Your task to perform on an android device: Open the clock Image 0: 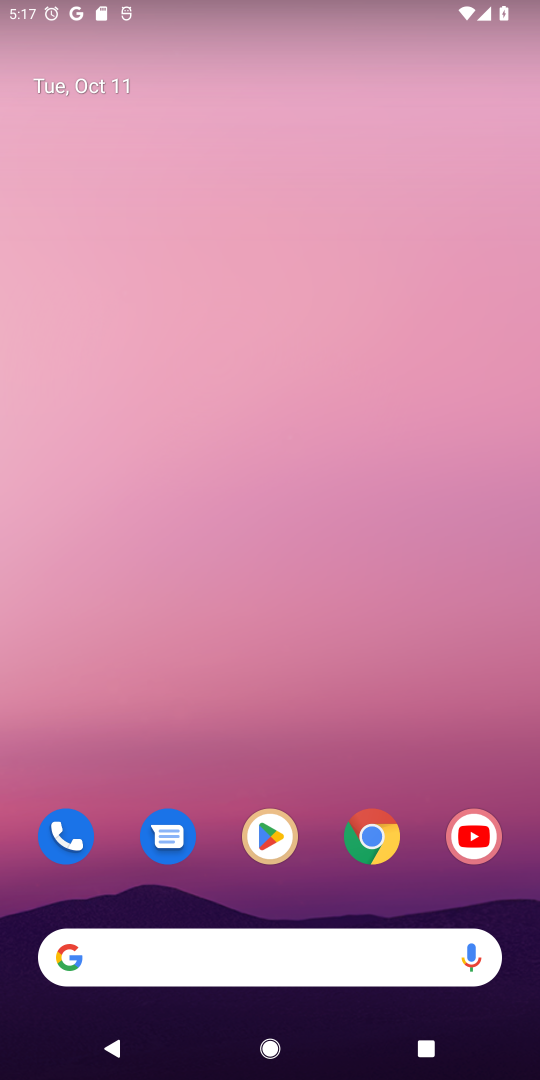
Step 0: drag from (215, 895) to (199, 22)
Your task to perform on an android device: Open the clock Image 1: 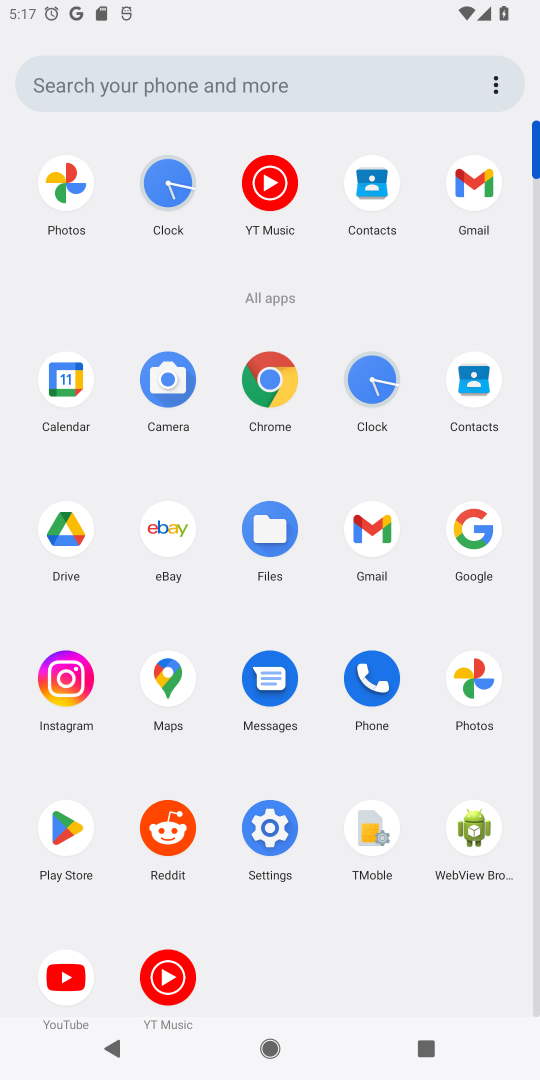
Step 1: click (381, 383)
Your task to perform on an android device: Open the clock Image 2: 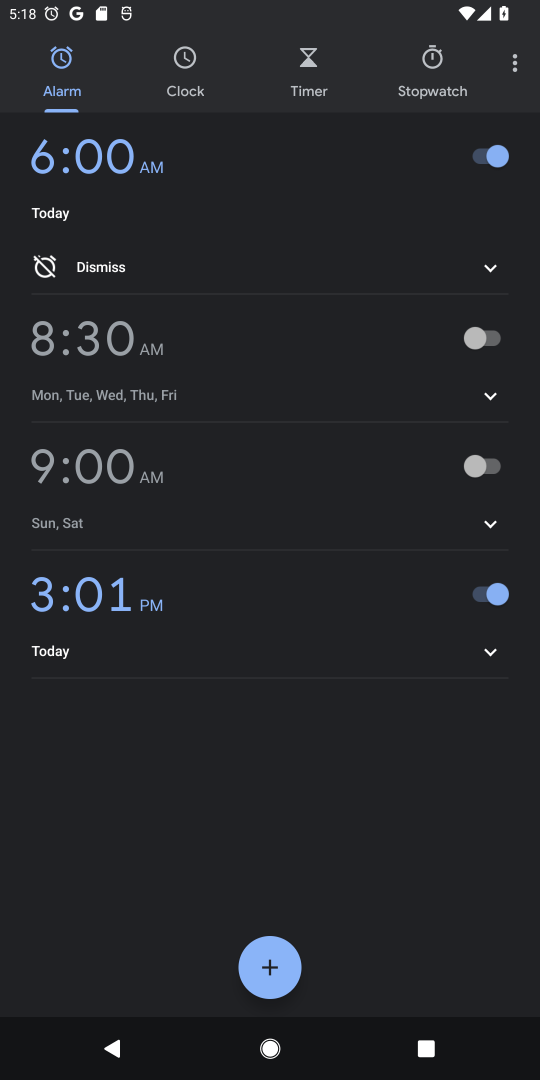
Step 2: task complete